Your task to perform on an android device: find photos in the google photos app Image 0: 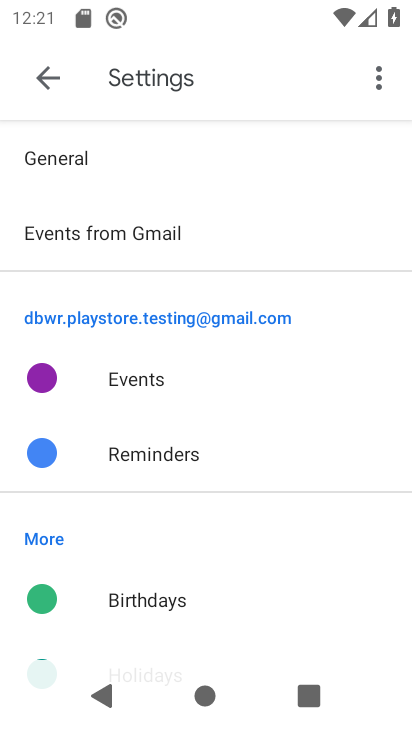
Step 0: press home button
Your task to perform on an android device: find photos in the google photos app Image 1: 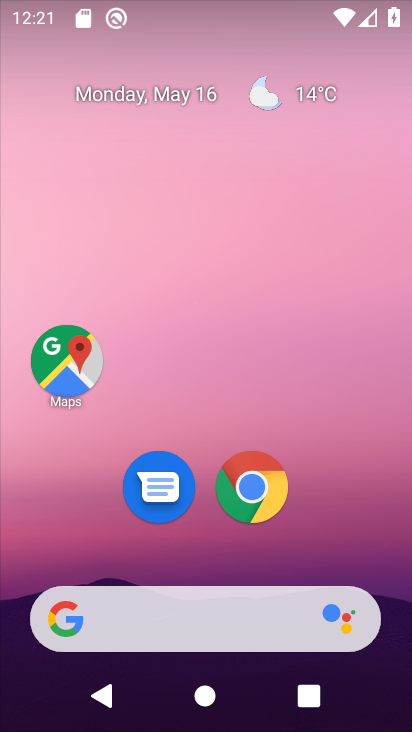
Step 1: drag from (138, 471) to (267, 8)
Your task to perform on an android device: find photos in the google photos app Image 2: 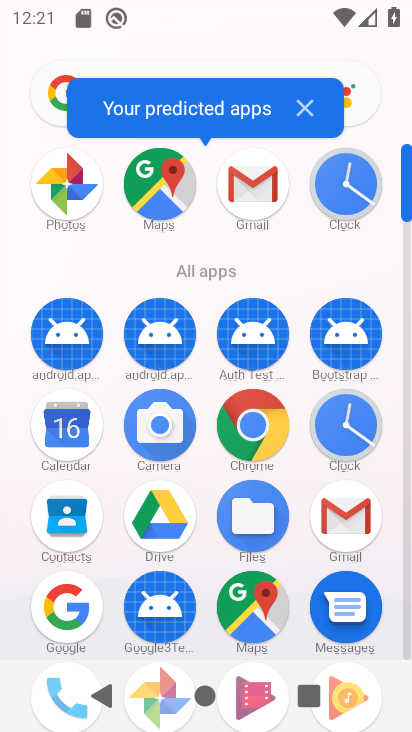
Step 2: drag from (176, 665) to (267, 385)
Your task to perform on an android device: find photos in the google photos app Image 3: 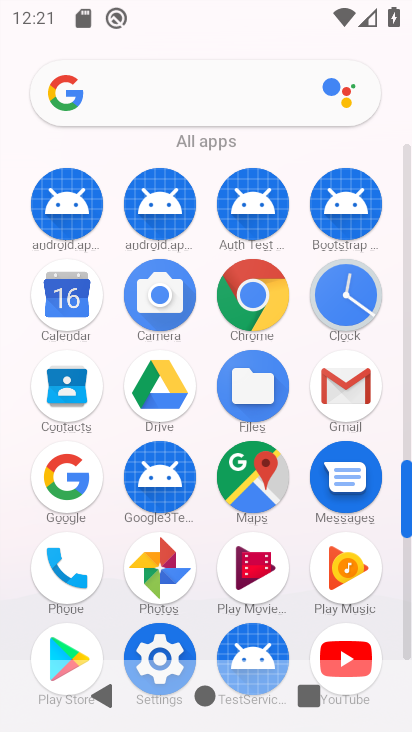
Step 3: click (169, 568)
Your task to perform on an android device: find photos in the google photos app Image 4: 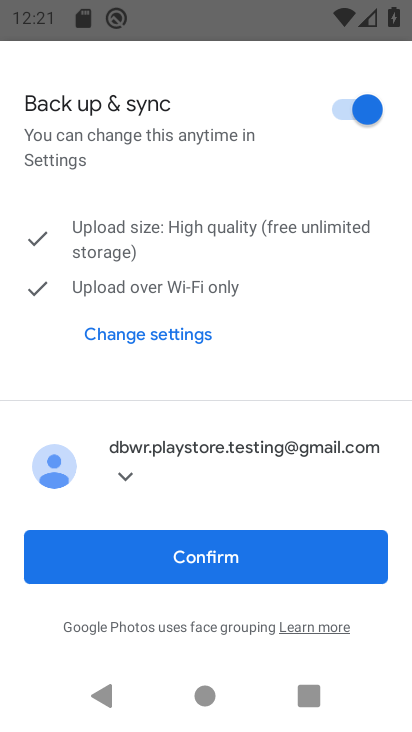
Step 4: click (255, 577)
Your task to perform on an android device: find photos in the google photos app Image 5: 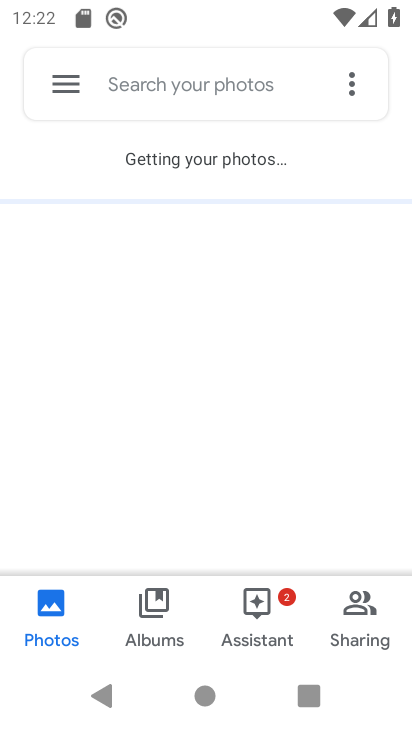
Step 5: task complete